Your task to perform on an android device: Go to Yahoo.com Image 0: 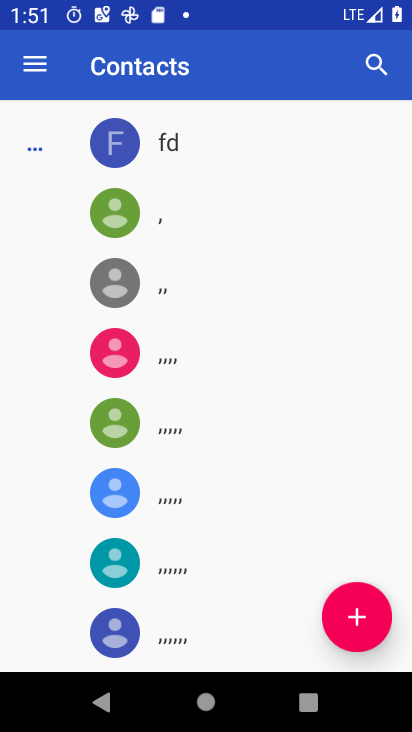
Step 0: press home button
Your task to perform on an android device: Go to Yahoo.com Image 1: 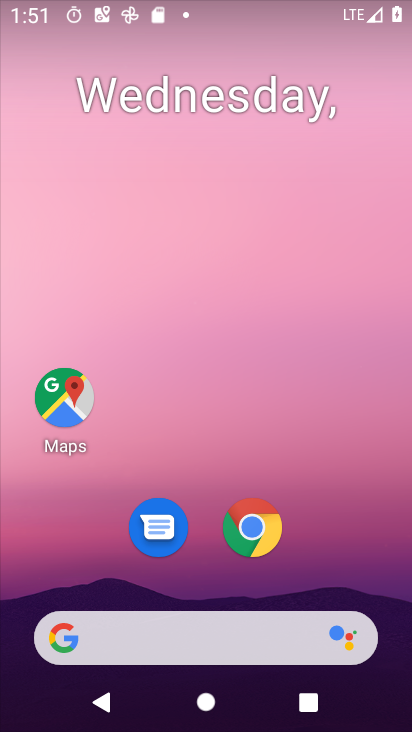
Step 1: drag from (104, 644) to (141, 13)
Your task to perform on an android device: Go to Yahoo.com Image 2: 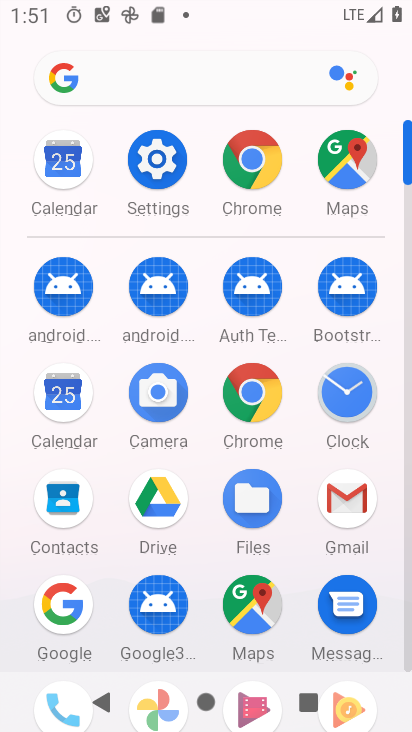
Step 2: click (265, 398)
Your task to perform on an android device: Go to Yahoo.com Image 3: 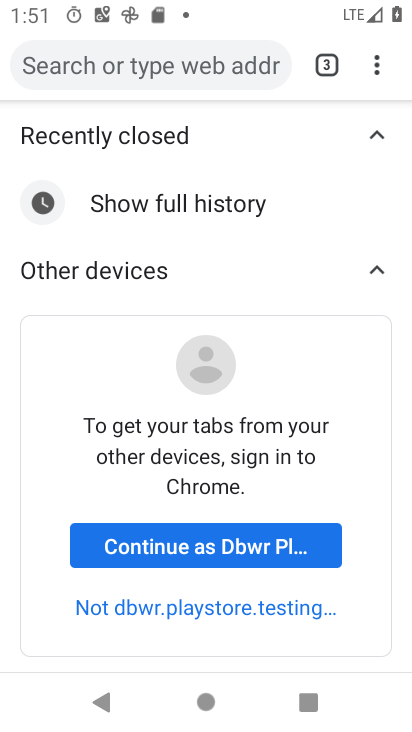
Step 3: press back button
Your task to perform on an android device: Go to Yahoo.com Image 4: 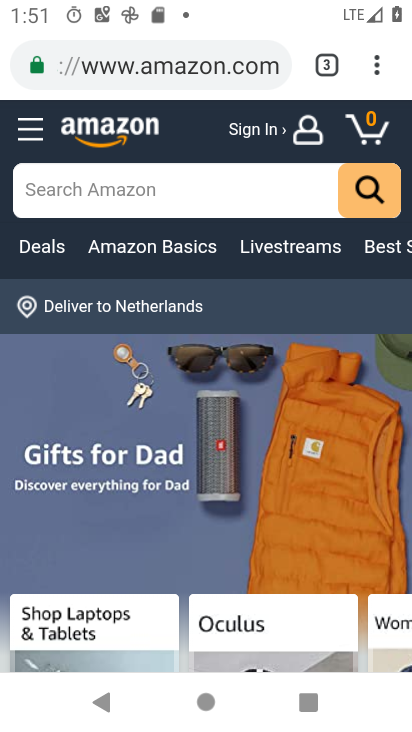
Step 4: drag from (345, 97) to (221, 123)
Your task to perform on an android device: Go to Yahoo.com Image 5: 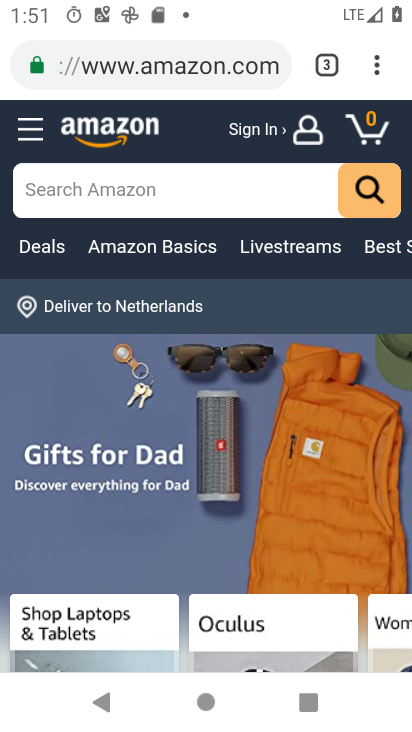
Step 5: drag from (377, 72) to (256, 132)
Your task to perform on an android device: Go to Yahoo.com Image 6: 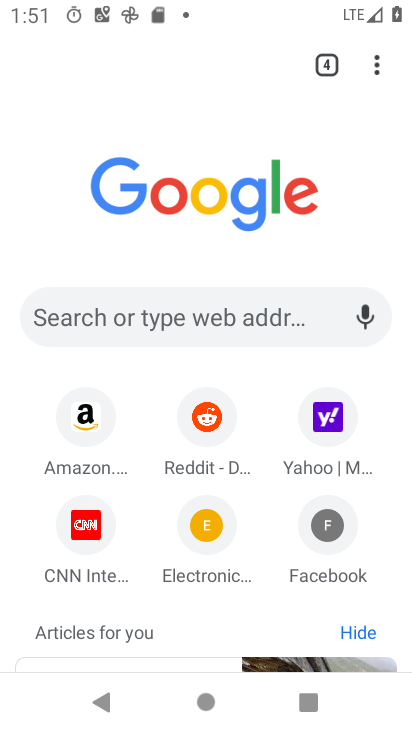
Step 6: click (334, 417)
Your task to perform on an android device: Go to Yahoo.com Image 7: 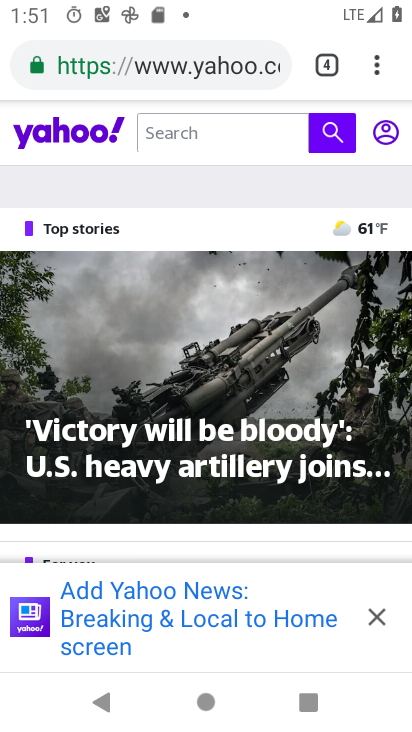
Step 7: task complete